Your task to perform on an android device: turn off picture-in-picture Image 0: 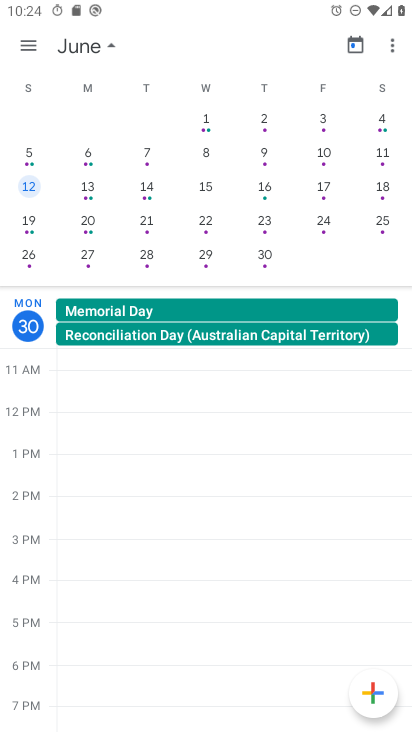
Step 0: press home button
Your task to perform on an android device: turn off picture-in-picture Image 1: 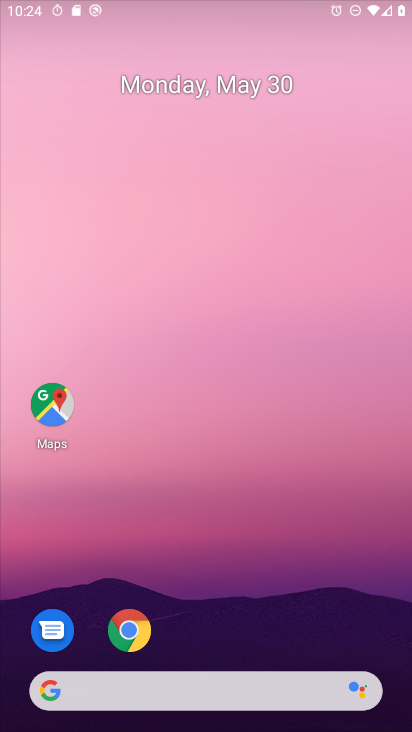
Step 1: drag from (325, 597) to (337, 52)
Your task to perform on an android device: turn off picture-in-picture Image 2: 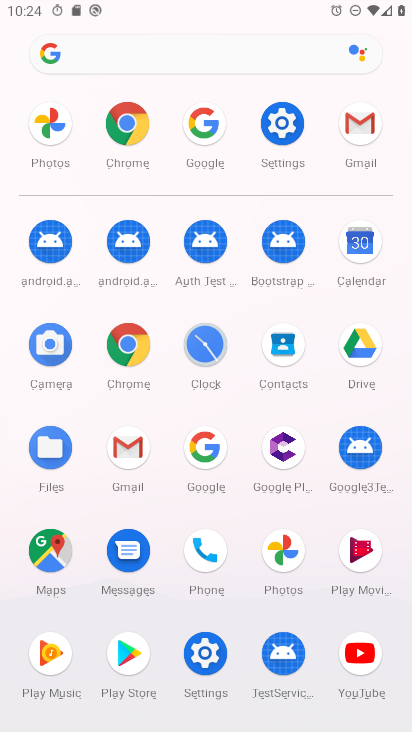
Step 2: click (119, 119)
Your task to perform on an android device: turn off picture-in-picture Image 3: 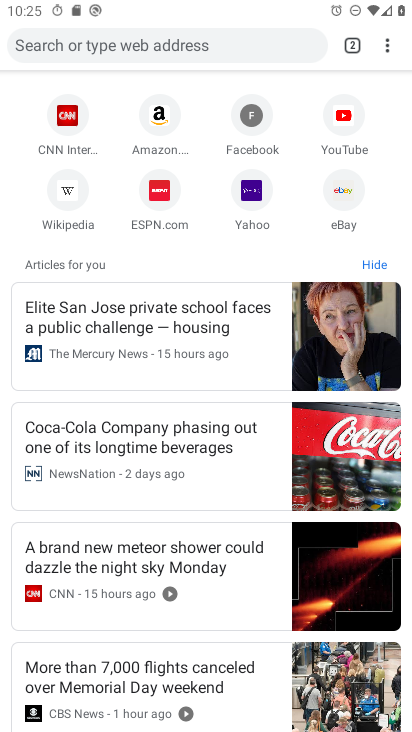
Step 3: task complete